Your task to perform on an android device: What's the weather going to be tomorrow? Image 0: 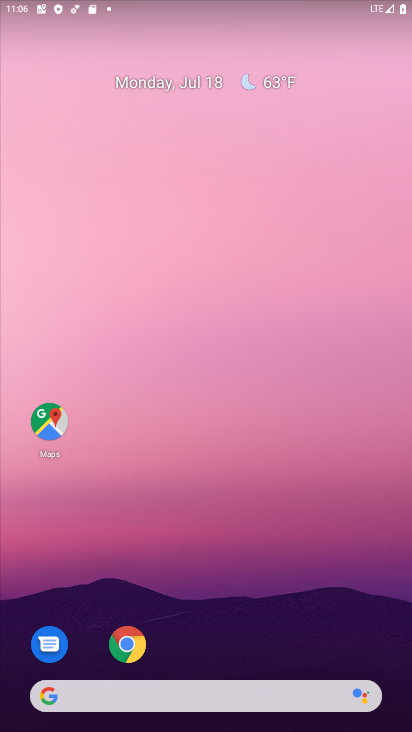
Step 0: click (197, 685)
Your task to perform on an android device: What's the weather going to be tomorrow? Image 1: 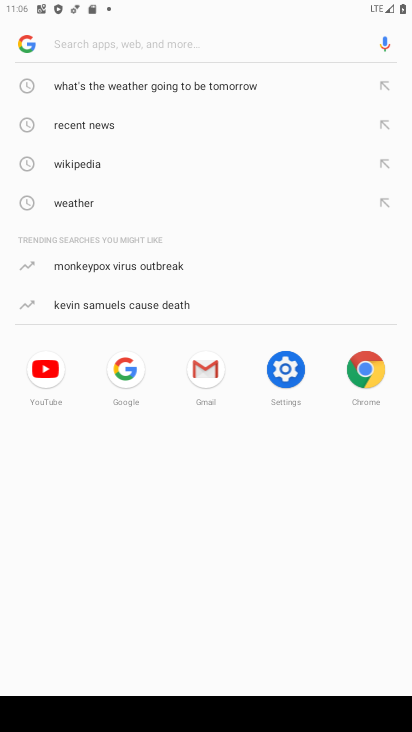
Step 1: type "what's the weather going to be tomorrow"
Your task to perform on an android device: What's the weather going to be tomorrow? Image 2: 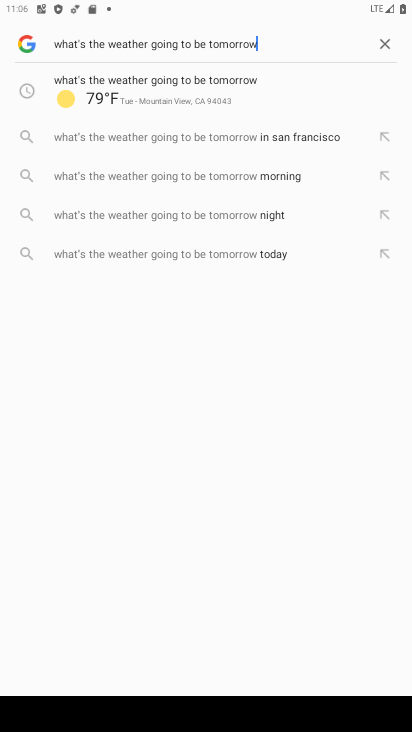
Step 2: click (261, 89)
Your task to perform on an android device: What's the weather going to be tomorrow? Image 3: 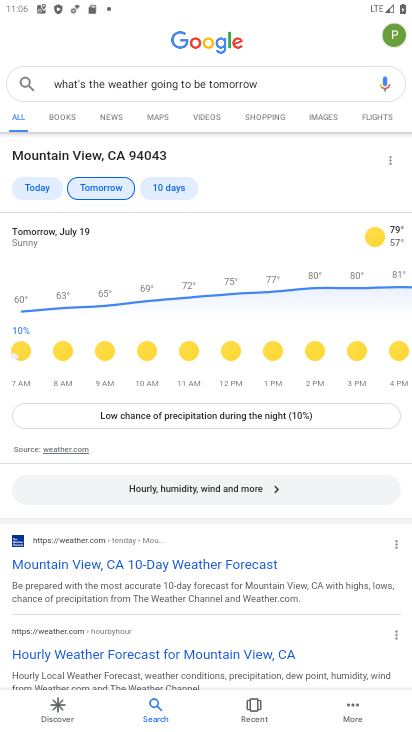
Step 3: task complete